Your task to perform on an android device: refresh tabs in the chrome app Image 0: 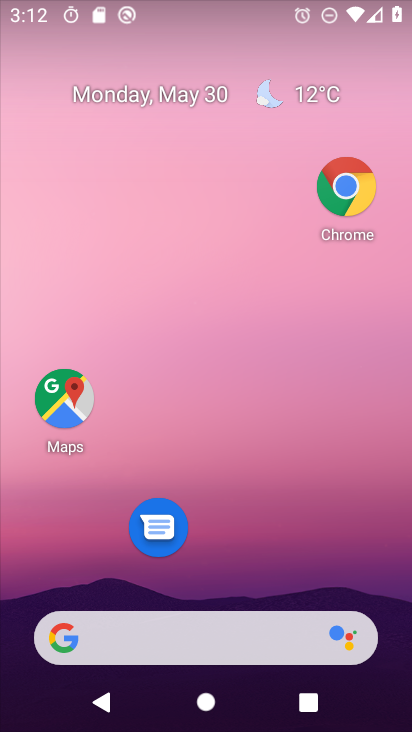
Step 0: click (356, 199)
Your task to perform on an android device: refresh tabs in the chrome app Image 1: 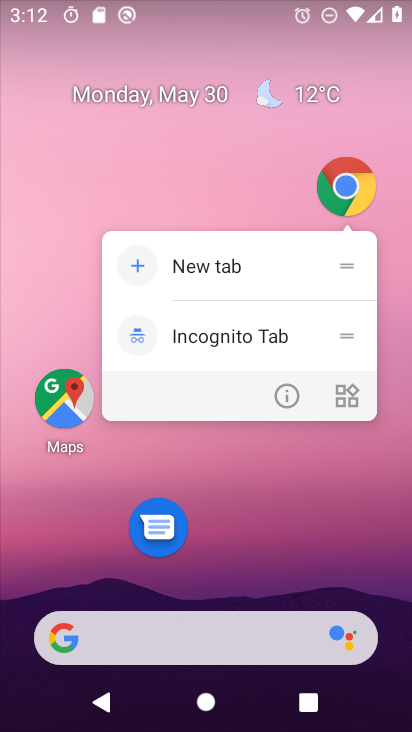
Step 1: click (295, 386)
Your task to perform on an android device: refresh tabs in the chrome app Image 2: 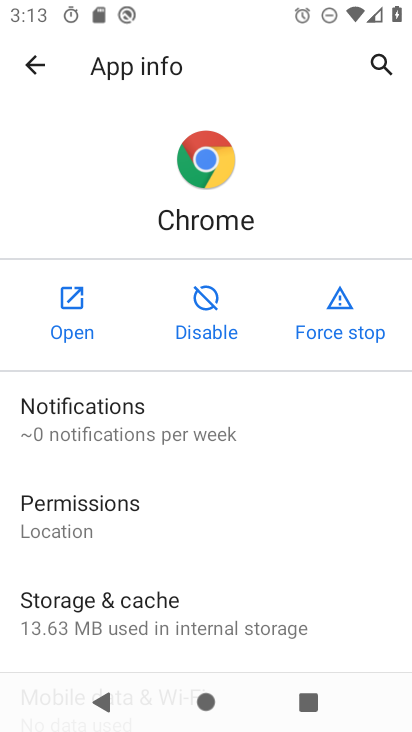
Step 2: click (75, 324)
Your task to perform on an android device: refresh tabs in the chrome app Image 3: 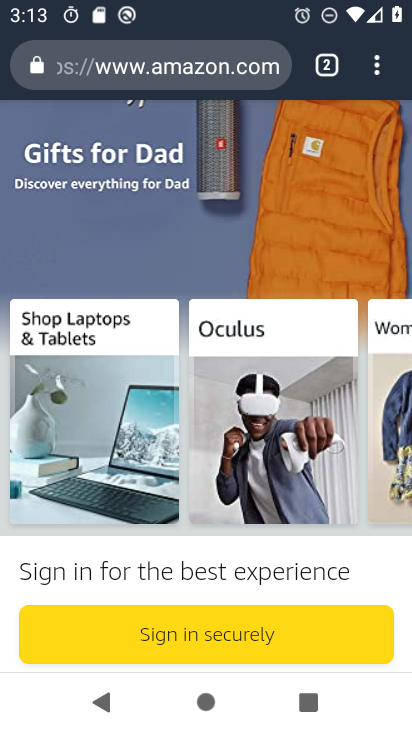
Step 3: click (379, 69)
Your task to perform on an android device: refresh tabs in the chrome app Image 4: 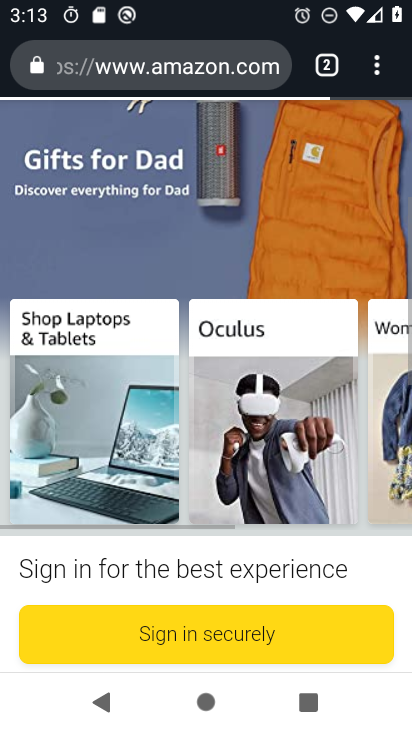
Step 4: task complete